Your task to perform on an android device: Open the web browser Image 0: 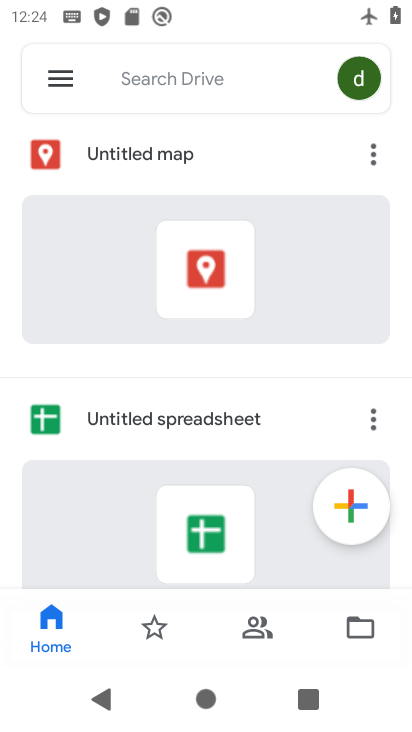
Step 0: press home button
Your task to perform on an android device: Open the web browser Image 1: 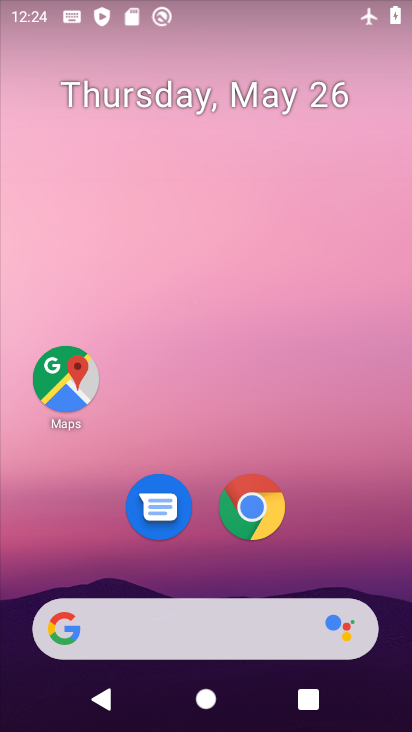
Step 1: click (246, 519)
Your task to perform on an android device: Open the web browser Image 2: 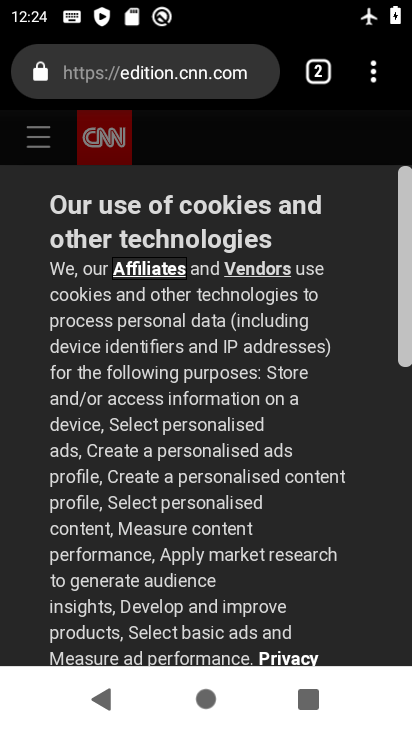
Step 2: task complete